Your task to perform on an android device: turn off location Image 0: 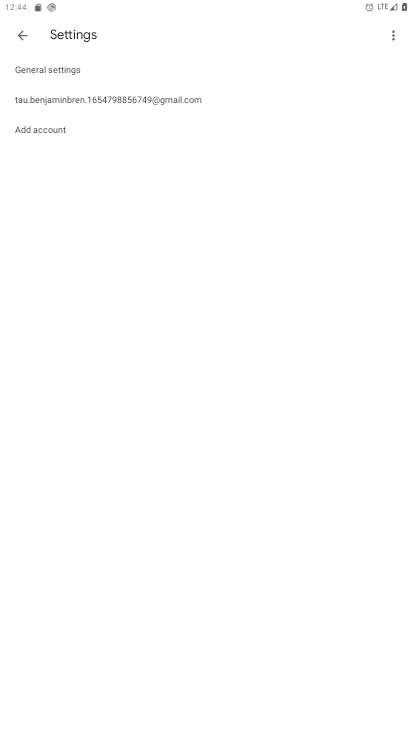
Step 0: press home button
Your task to perform on an android device: turn off location Image 1: 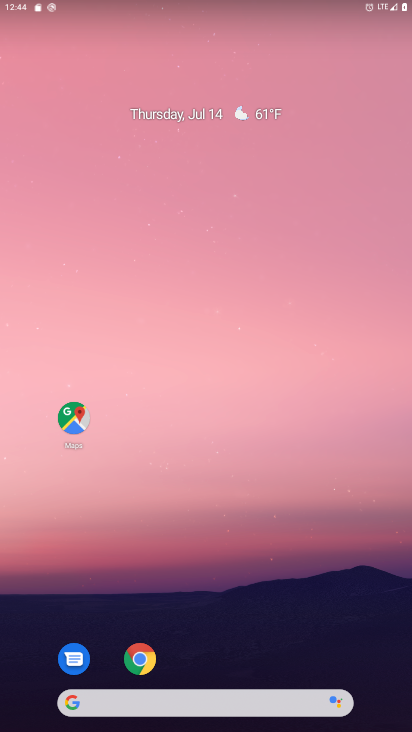
Step 1: drag from (209, 646) to (269, 131)
Your task to perform on an android device: turn off location Image 2: 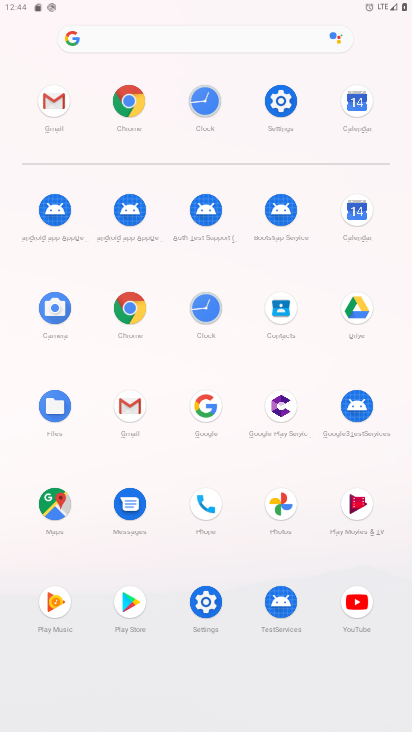
Step 2: click (284, 96)
Your task to perform on an android device: turn off location Image 3: 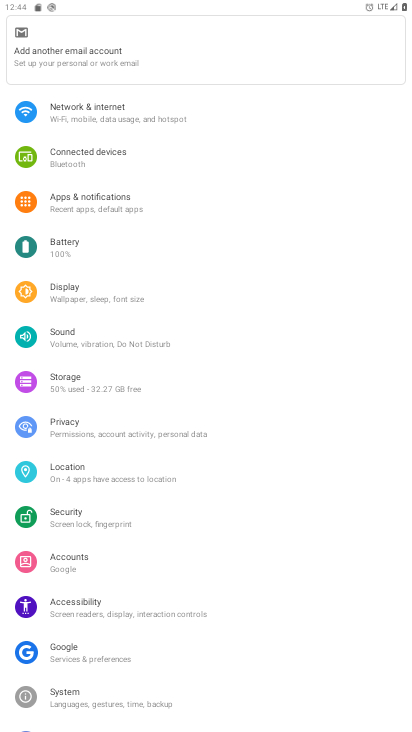
Step 3: click (89, 471)
Your task to perform on an android device: turn off location Image 4: 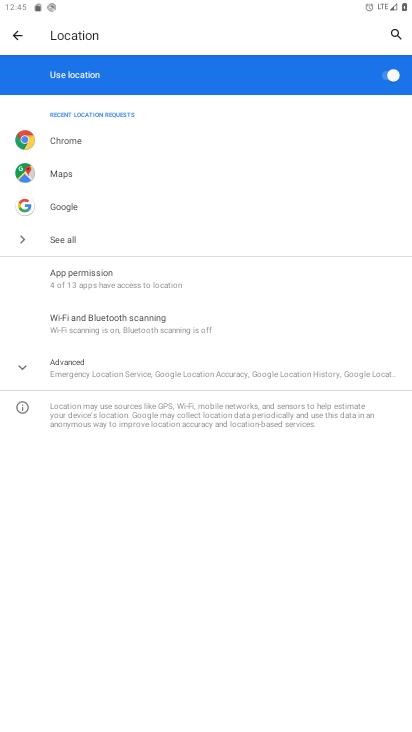
Step 4: click (27, 363)
Your task to perform on an android device: turn off location Image 5: 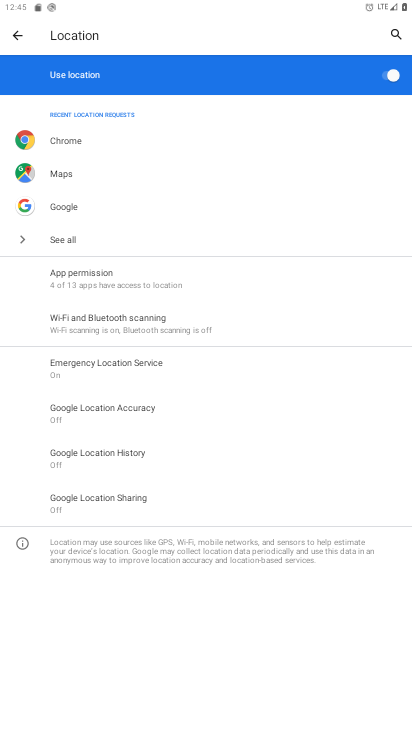
Step 5: click (395, 76)
Your task to perform on an android device: turn off location Image 6: 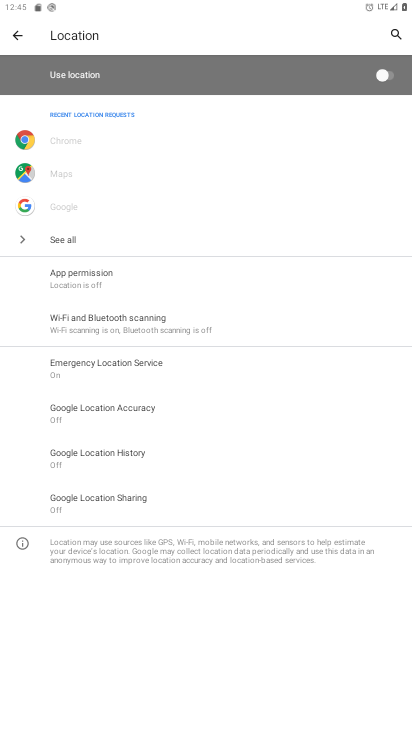
Step 6: task complete